Your task to perform on an android device: create a new album in the google photos Image 0: 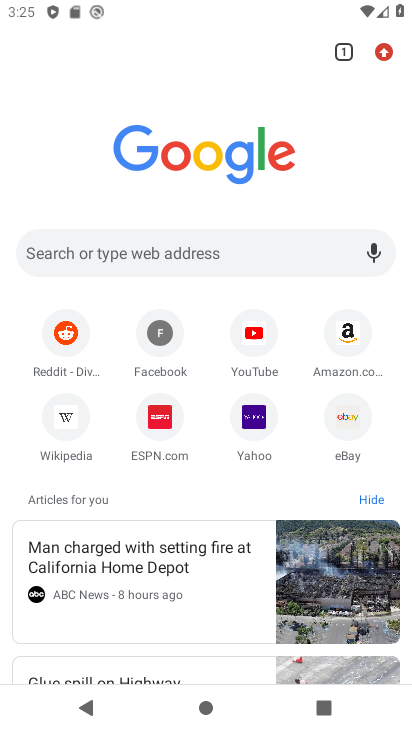
Step 0: press home button
Your task to perform on an android device: create a new album in the google photos Image 1: 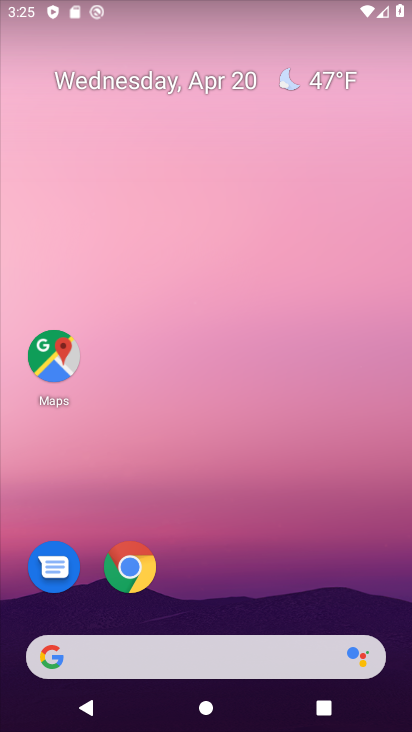
Step 1: drag from (266, 610) to (259, 120)
Your task to perform on an android device: create a new album in the google photos Image 2: 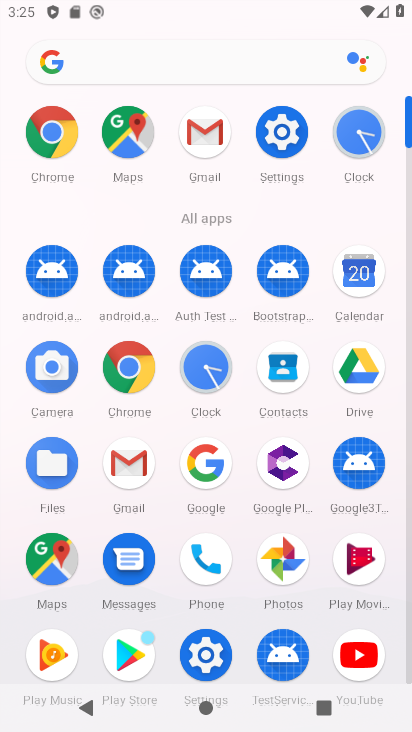
Step 2: click (276, 557)
Your task to perform on an android device: create a new album in the google photos Image 3: 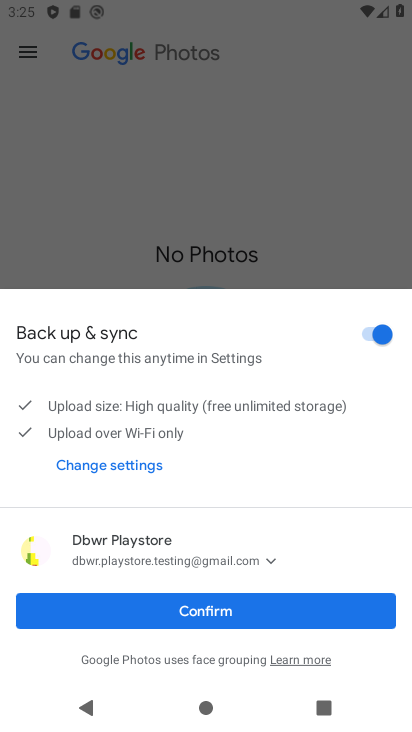
Step 3: click (257, 614)
Your task to perform on an android device: create a new album in the google photos Image 4: 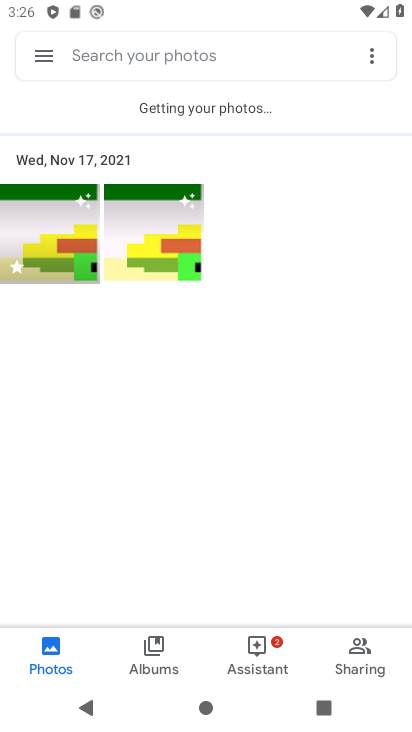
Step 4: click (70, 250)
Your task to perform on an android device: create a new album in the google photos Image 5: 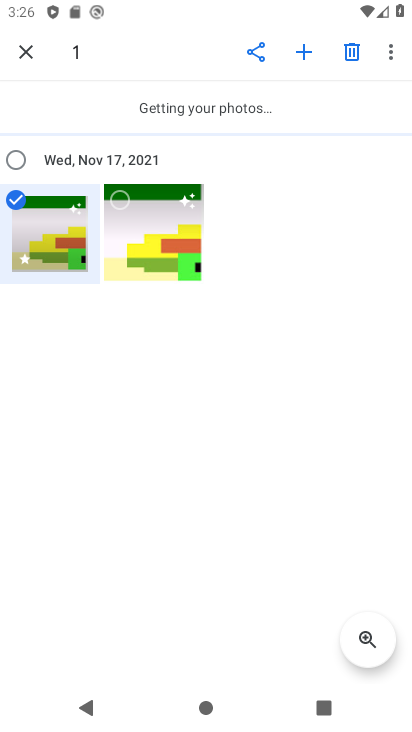
Step 5: click (121, 205)
Your task to perform on an android device: create a new album in the google photos Image 6: 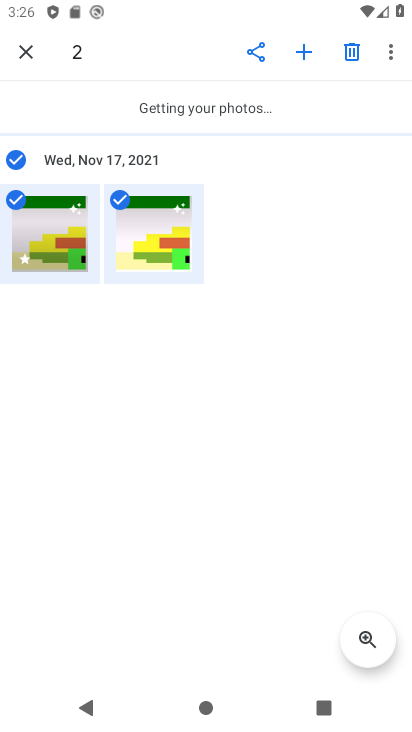
Step 6: click (307, 55)
Your task to perform on an android device: create a new album in the google photos Image 7: 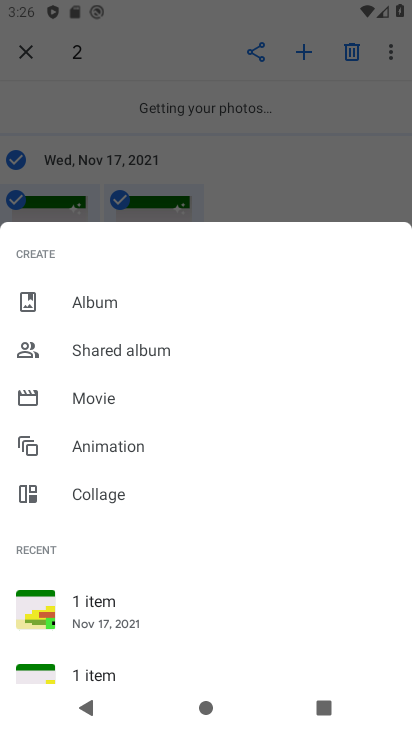
Step 7: click (108, 305)
Your task to perform on an android device: create a new album in the google photos Image 8: 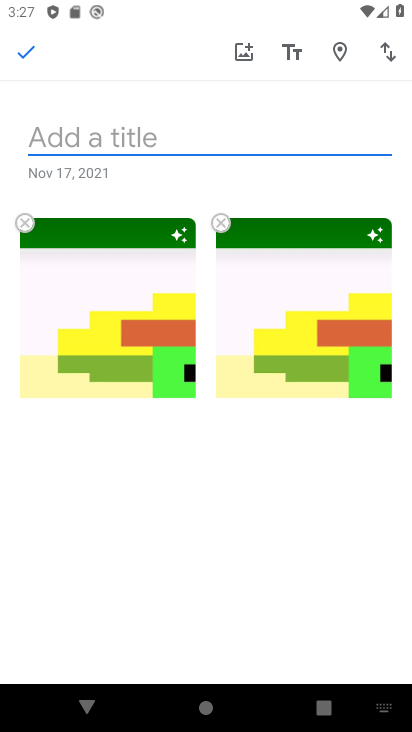
Step 8: type "tep"
Your task to perform on an android device: create a new album in the google photos Image 9: 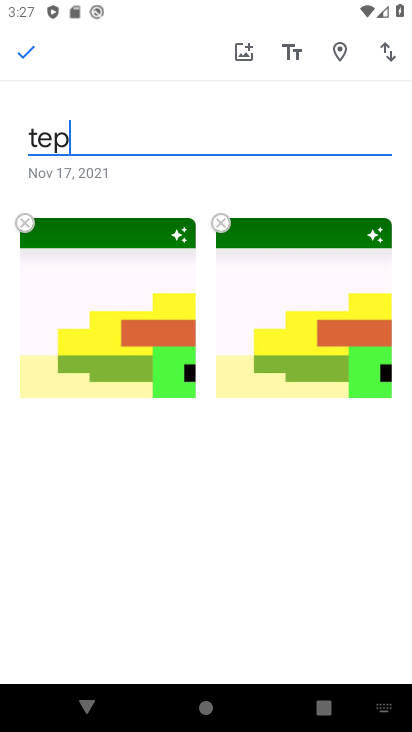
Step 9: click (25, 46)
Your task to perform on an android device: create a new album in the google photos Image 10: 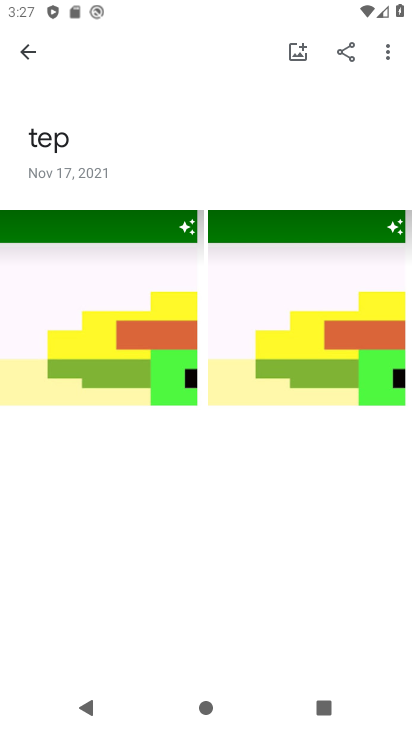
Step 10: task complete